Your task to perform on an android device: open a new tab in the chrome app Image 0: 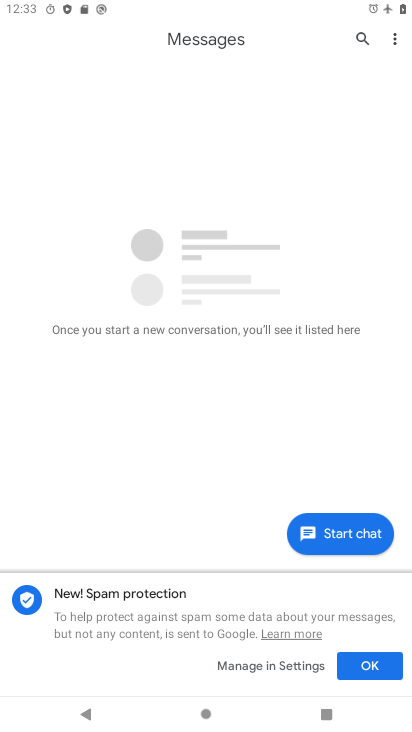
Step 0: press back button
Your task to perform on an android device: open a new tab in the chrome app Image 1: 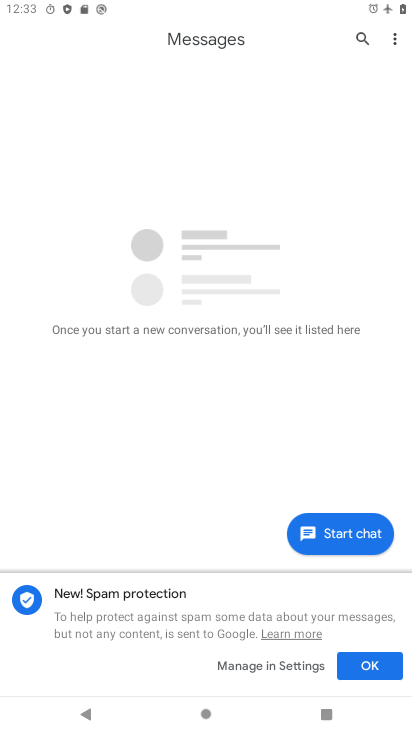
Step 1: press home button
Your task to perform on an android device: open a new tab in the chrome app Image 2: 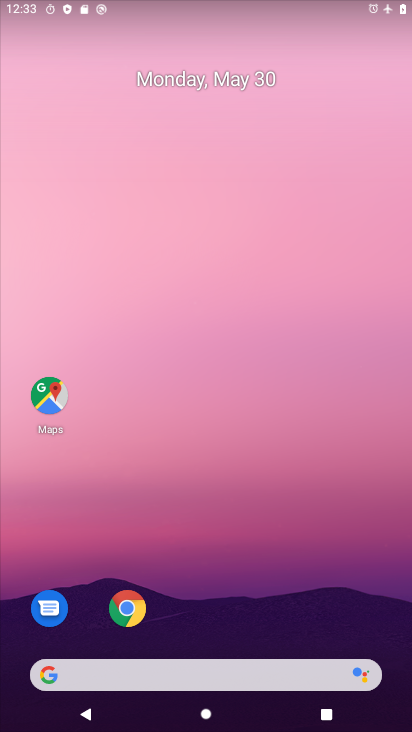
Step 2: click (108, 614)
Your task to perform on an android device: open a new tab in the chrome app Image 3: 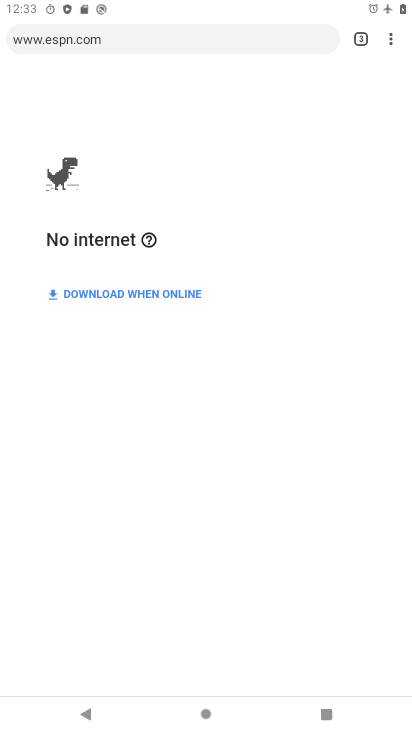
Step 3: click (361, 37)
Your task to perform on an android device: open a new tab in the chrome app Image 4: 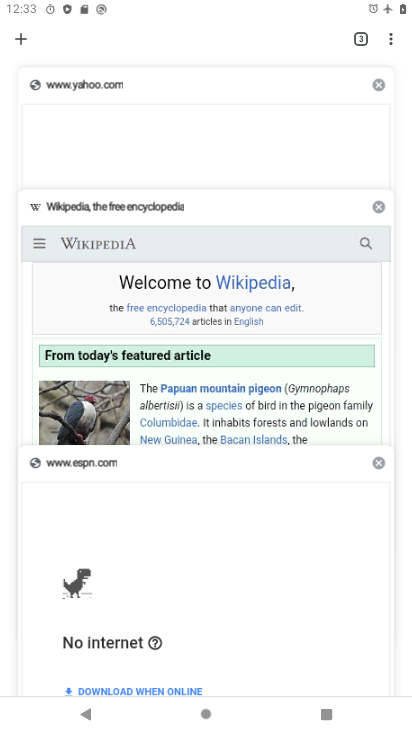
Step 4: click (23, 35)
Your task to perform on an android device: open a new tab in the chrome app Image 5: 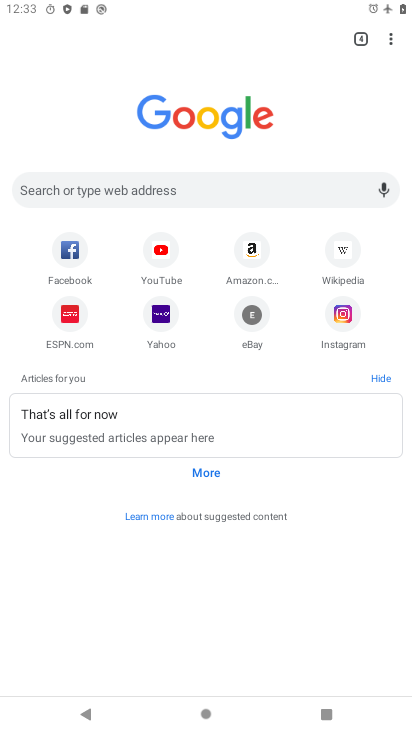
Step 5: task complete